Your task to perform on an android device: turn on data saver in the chrome app Image 0: 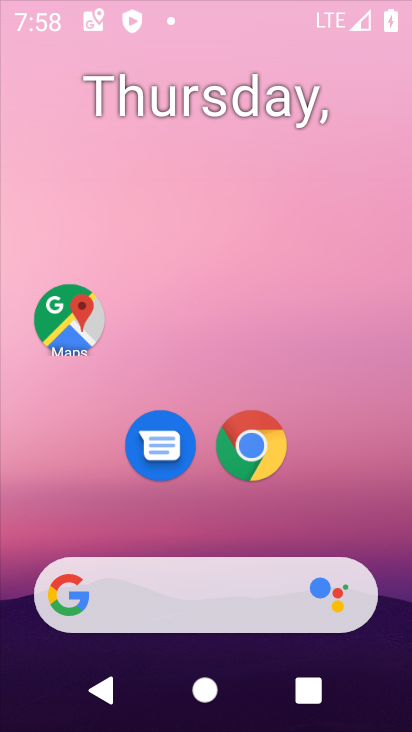
Step 0: click (277, 234)
Your task to perform on an android device: turn on data saver in the chrome app Image 1: 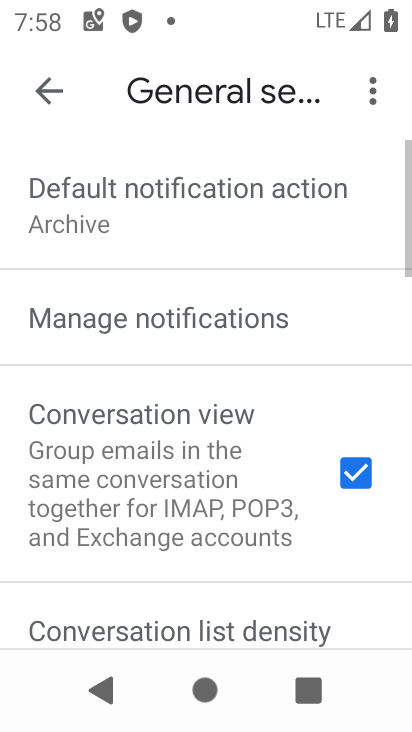
Step 1: press home button
Your task to perform on an android device: turn on data saver in the chrome app Image 2: 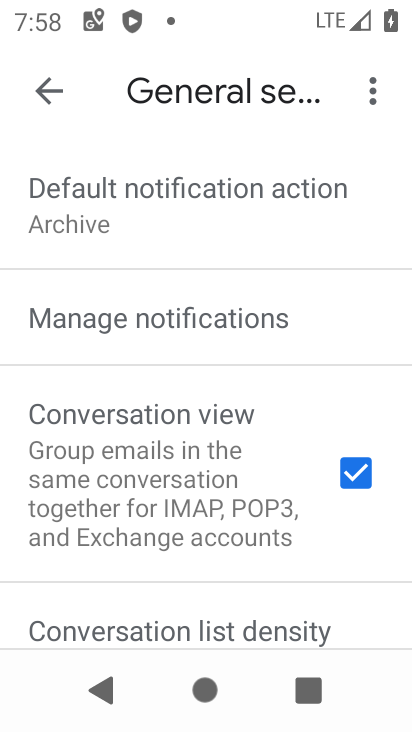
Step 2: press home button
Your task to perform on an android device: turn on data saver in the chrome app Image 3: 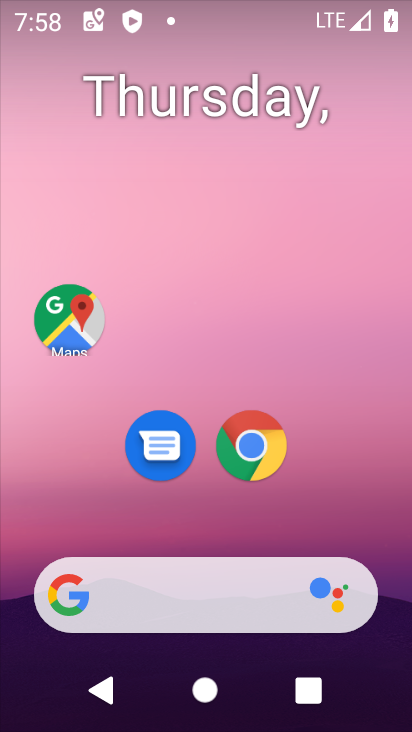
Step 3: drag from (203, 535) to (256, 191)
Your task to perform on an android device: turn on data saver in the chrome app Image 4: 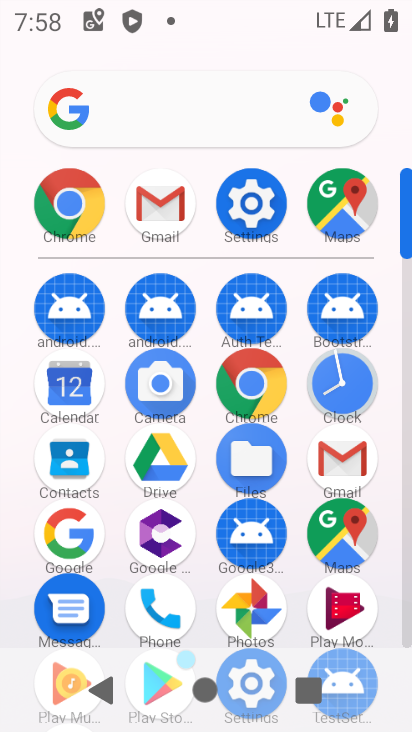
Step 4: click (243, 370)
Your task to perform on an android device: turn on data saver in the chrome app Image 5: 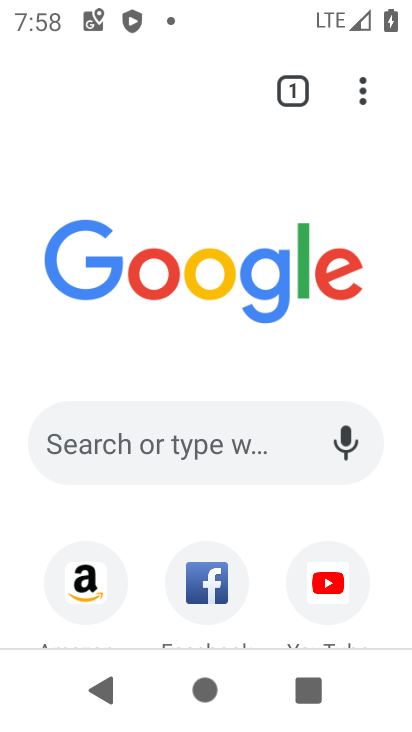
Step 5: drag from (366, 94) to (160, 478)
Your task to perform on an android device: turn on data saver in the chrome app Image 6: 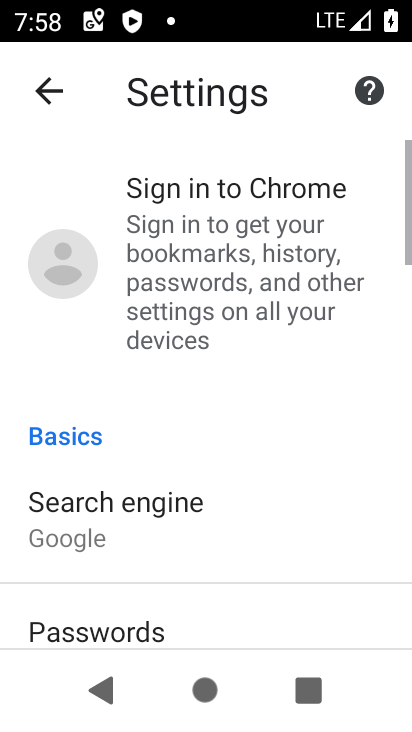
Step 6: drag from (211, 546) to (303, 198)
Your task to perform on an android device: turn on data saver in the chrome app Image 7: 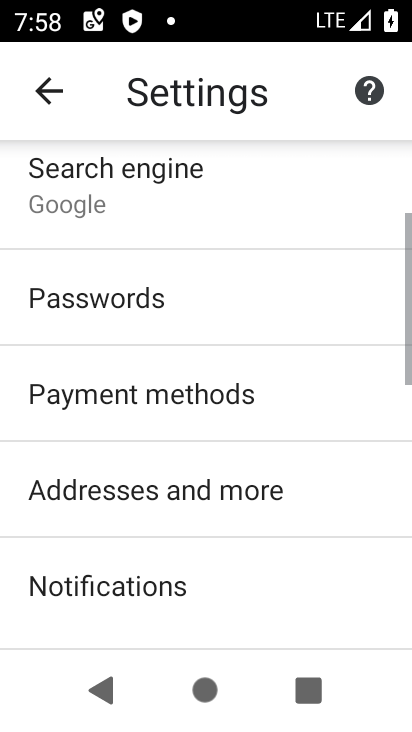
Step 7: drag from (222, 579) to (328, 60)
Your task to perform on an android device: turn on data saver in the chrome app Image 8: 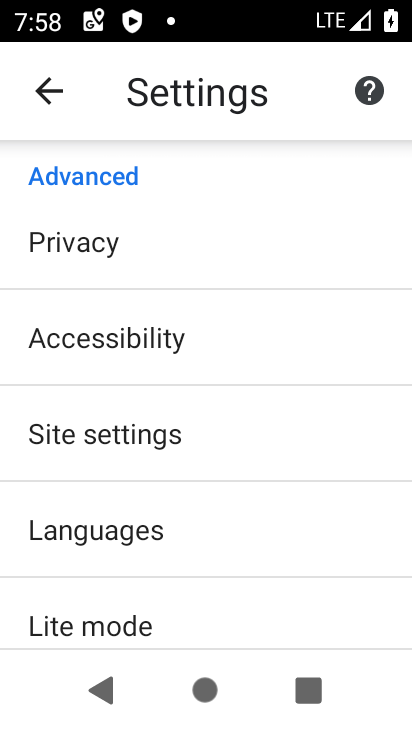
Step 8: drag from (188, 587) to (256, 222)
Your task to perform on an android device: turn on data saver in the chrome app Image 9: 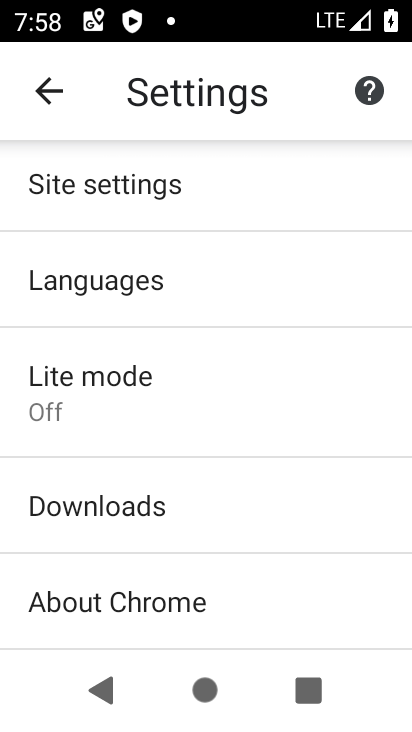
Step 9: click (155, 396)
Your task to perform on an android device: turn on data saver in the chrome app Image 10: 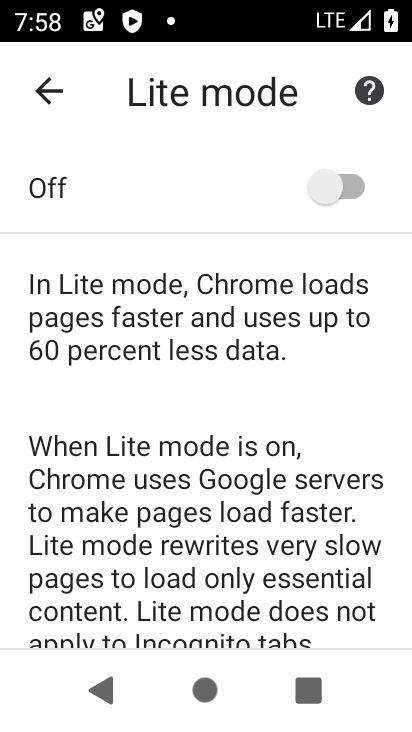
Step 10: click (320, 162)
Your task to perform on an android device: turn on data saver in the chrome app Image 11: 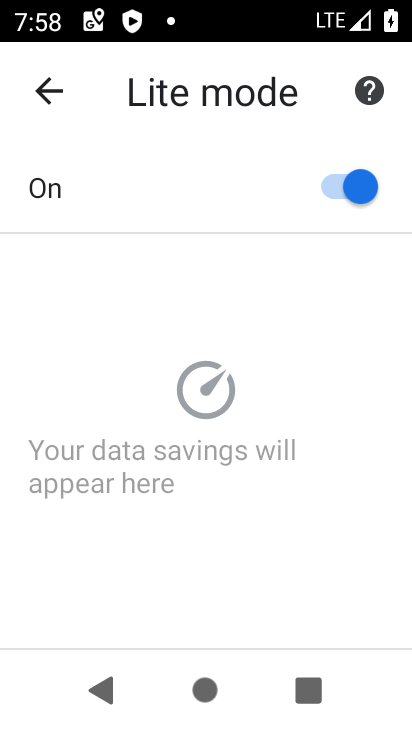
Step 11: task complete